Your task to perform on an android device: open a new tab in the chrome app Image 0: 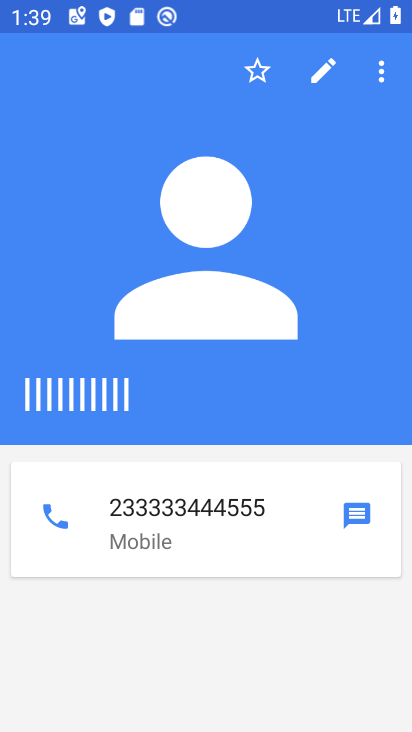
Step 0: press home button
Your task to perform on an android device: open a new tab in the chrome app Image 1: 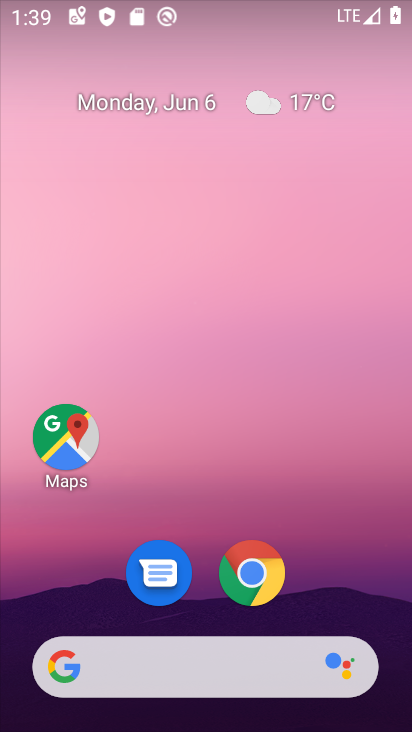
Step 1: drag from (356, 602) to (375, 187)
Your task to perform on an android device: open a new tab in the chrome app Image 2: 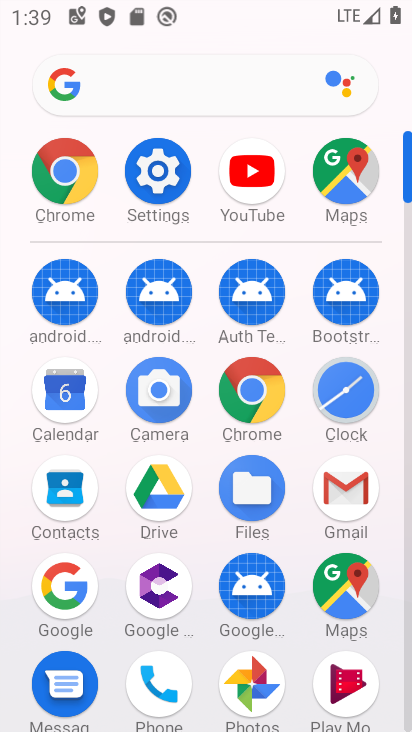
Step 2: click (266, 386)
Your task to perform on an android device: open a new tab in the chrome app Image 3: 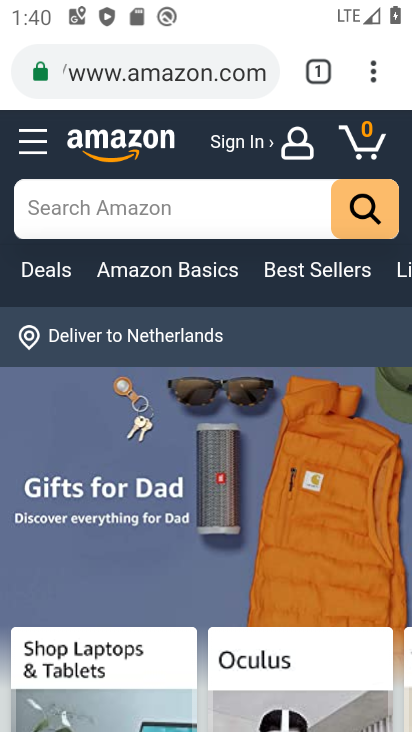
Step 3: click (373, 77)
Your task to perform on an android device: open a new tab in the chrome app Image 4: 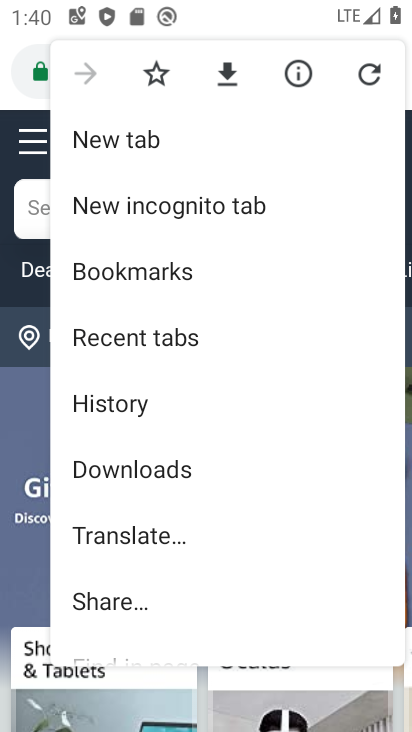
Step 4: drag from (286, 503) to (300, 282)
Your task to perform on an android device: open a new tab in the chrome app Image 5: 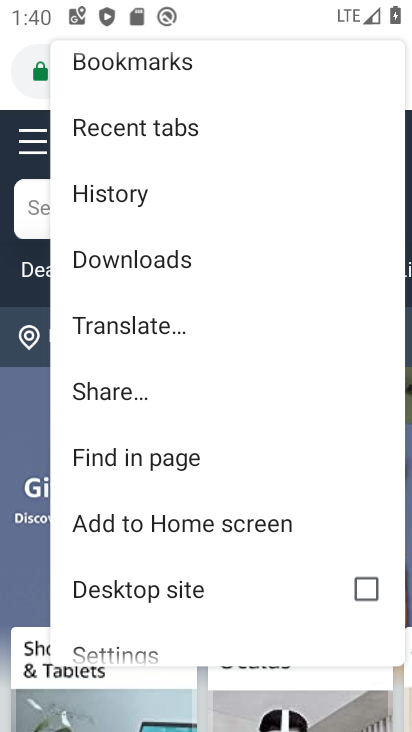
Step 5: drag from (315, 465) to (325, 204)
Your task to perform on an android device: open a new tab in the chrome app Image 6: 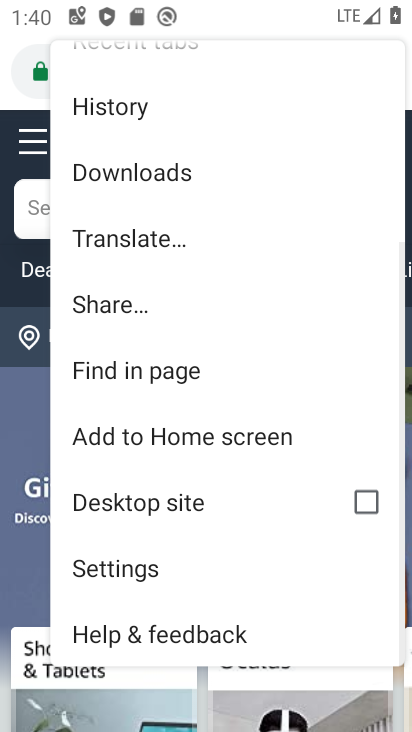
Step 6: drag from (308, 161) to (314, 307)
Your task to perform on an android device: open a new tab in the chrome app Image 7: 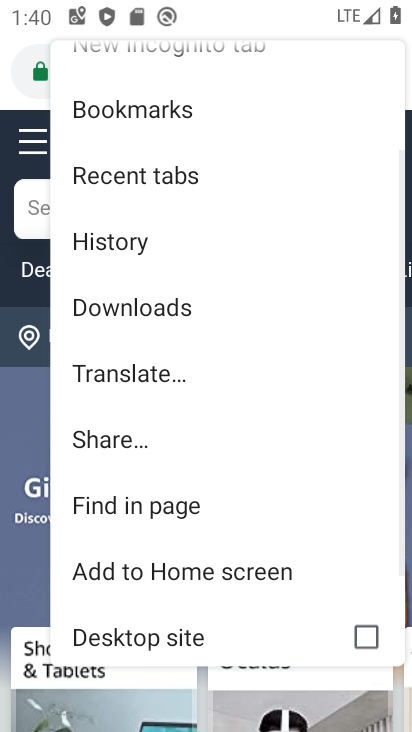
Step 7: drag from (304, 147) to (300, 333)
Your task to perform on an android device: open a new tab in the chrome app Image 8: 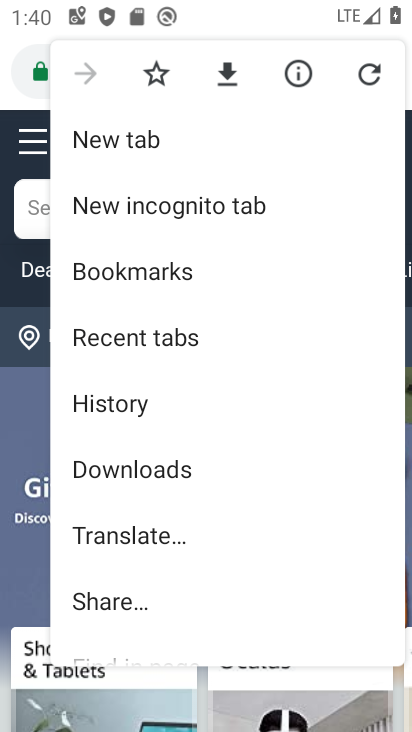
Step 8: click (139, 146)
Your task to perform on an android device: open a new tab in the chrome app Image 9: 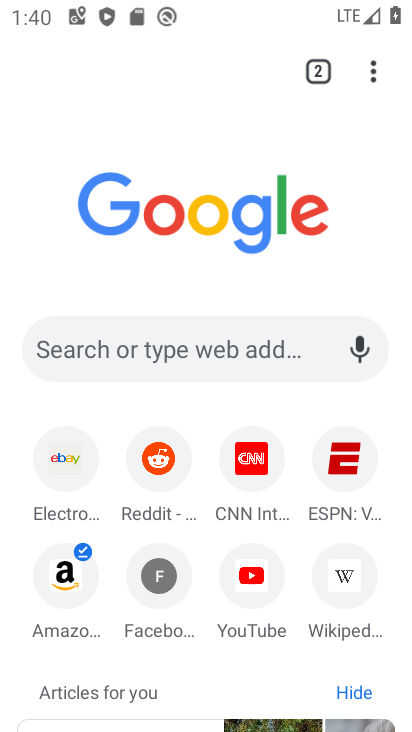
Step 9: task complete